Your task to perform on an android device: Open wifi settings Image 0: 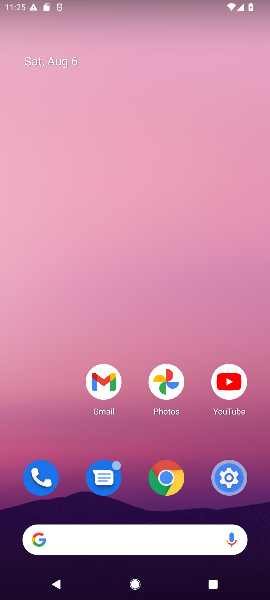
Step 0: drag from (112, 524) to (98, 290)
Your task to perform on an android device: Open wifi settings Image 1: 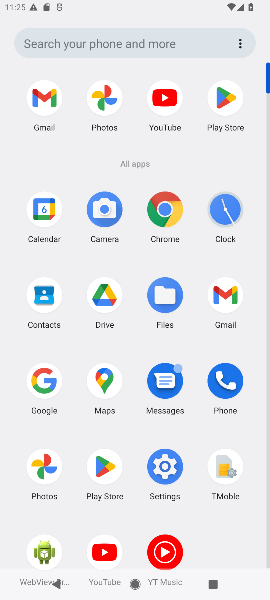
Step 1: click (160, 473)
Your task to perform on an android device: Open wifi settings Image 2: 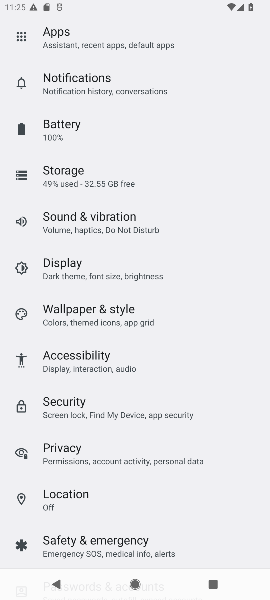
Step 2: drag from (109, 69) to (124, 443)
Your task to perform on an android device: Open wifi settings Image 3: 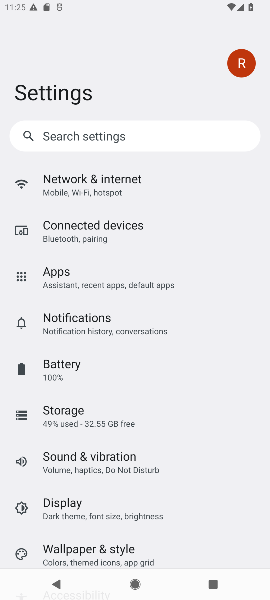
Step 3: click (67, 192)
Your task to perform on an android device: Open wifi settings Image 4: 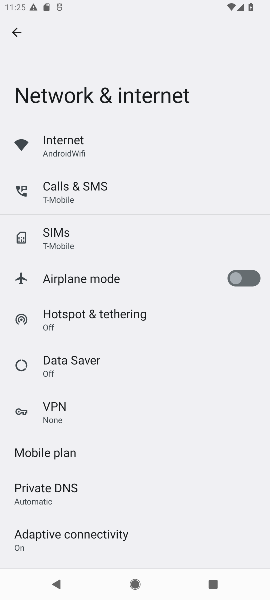
Step 4: click (79, 148)
Your task to perform on an android device: Open wifi settings Image 5: 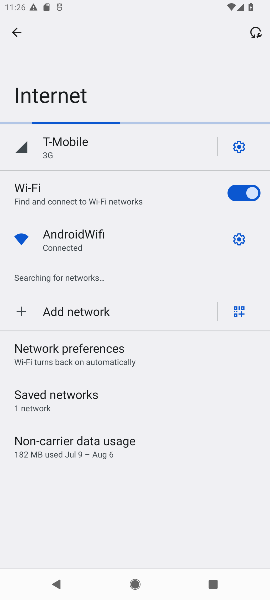
Step 5: click (237, 236)
Your task to perform on an android device: Open wifi settings Image 6: 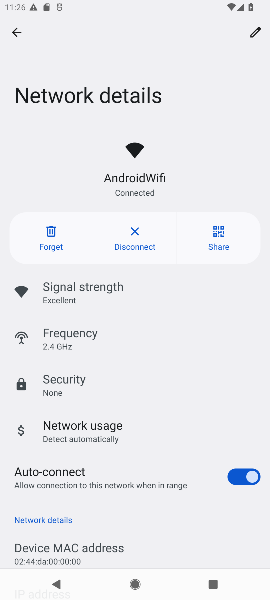
Step 6: task complete